Your task to perform on an android device: open wifi settings Image 0: 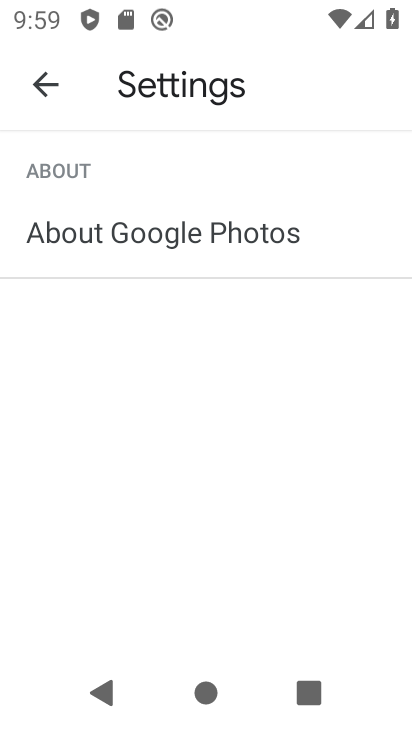
Step 0: press back button
Your task to perform on an android device: open wifi settings Image 1: 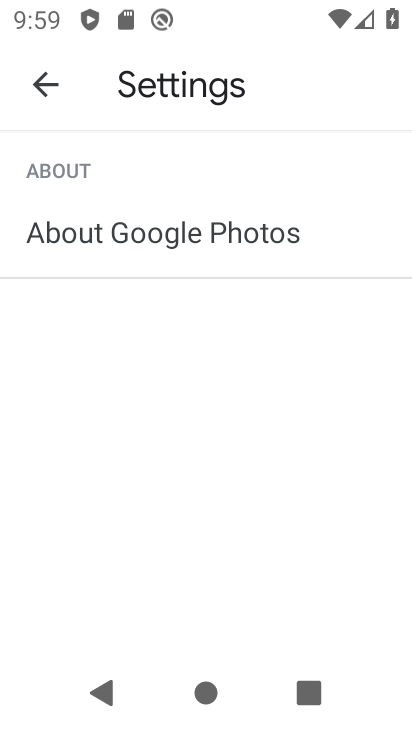
Step 1: press back button
Your task to perform on an android device: open wifi settings Image 2: 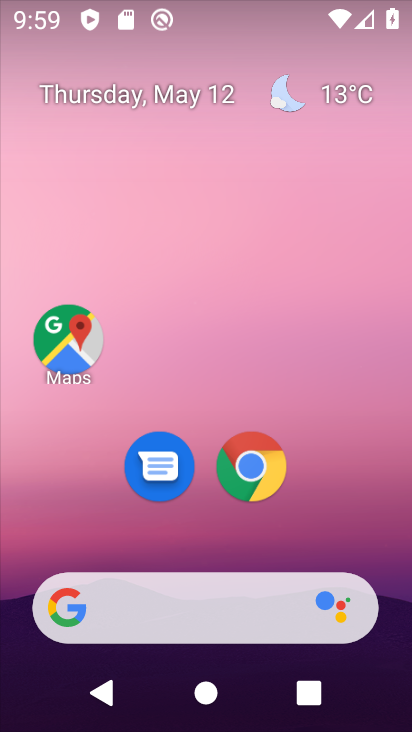
Step 2: drag from (97, 10) to (189, 631)
Your task to perform on an android device: open wifi settings Image 3: 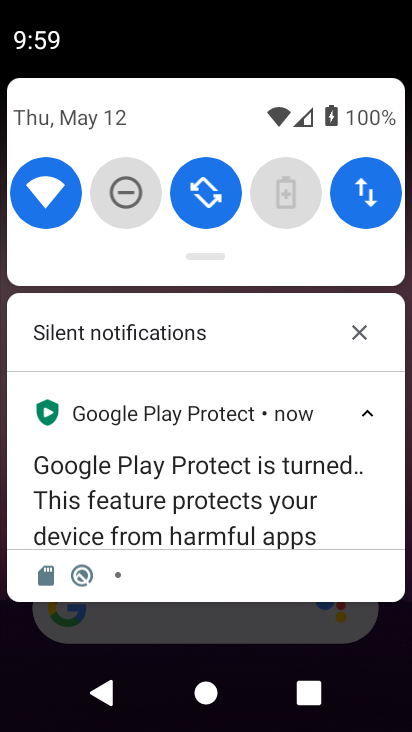
Step 3: click (58, 198)
Your task to perform on an android device: open wifi settings Image 4: 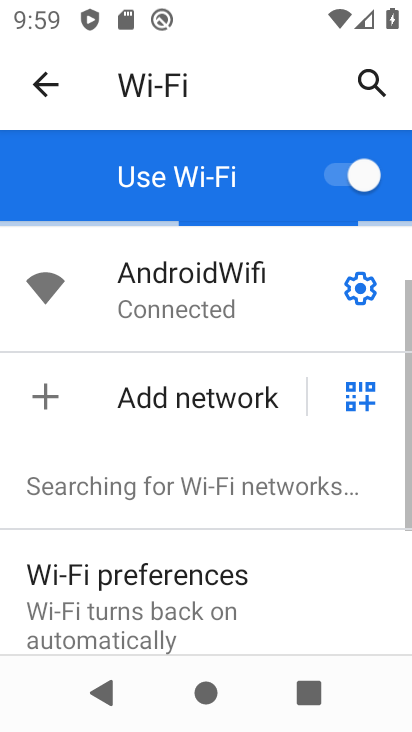
Step 4: task complete